Your task to perform on an android device: Show me productivity apps on the Play Store Image 0: 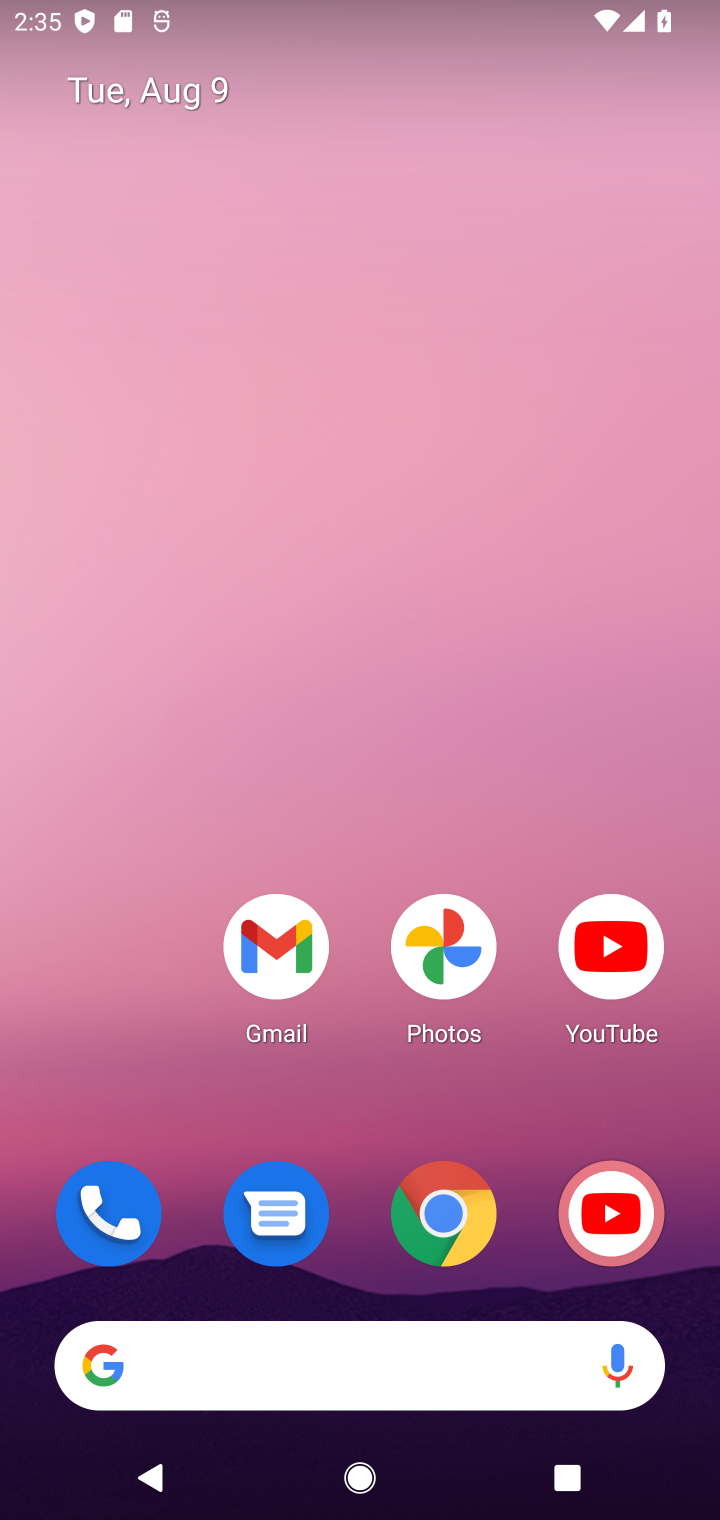
Step 0: drag from (398, 1371) to (651, 599)
Your task to perform on an android device: Show me productivity apps on the Play Store Image 1: 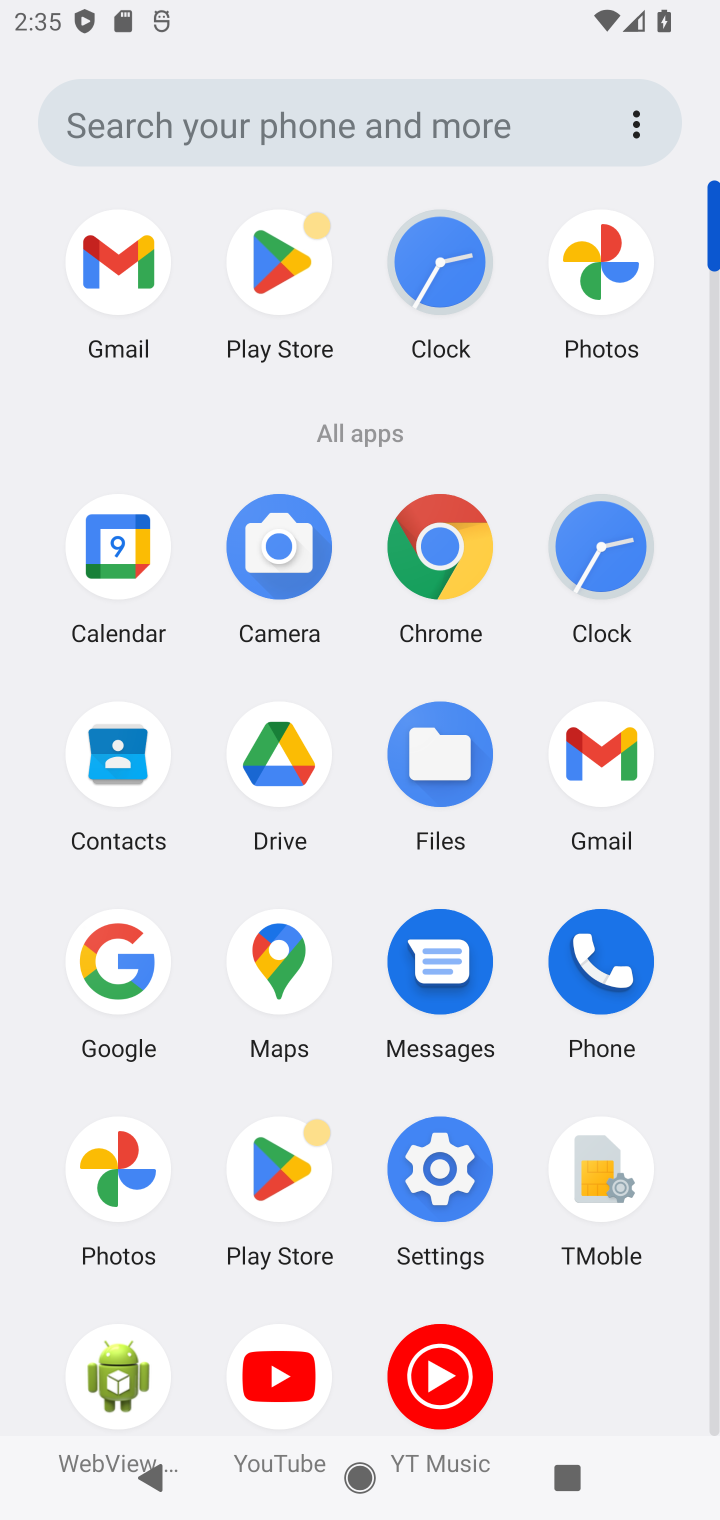
Step 1: click (294, 261)
Your task to perform on an android device: Show me productivity apps on the Play Store Image 2: 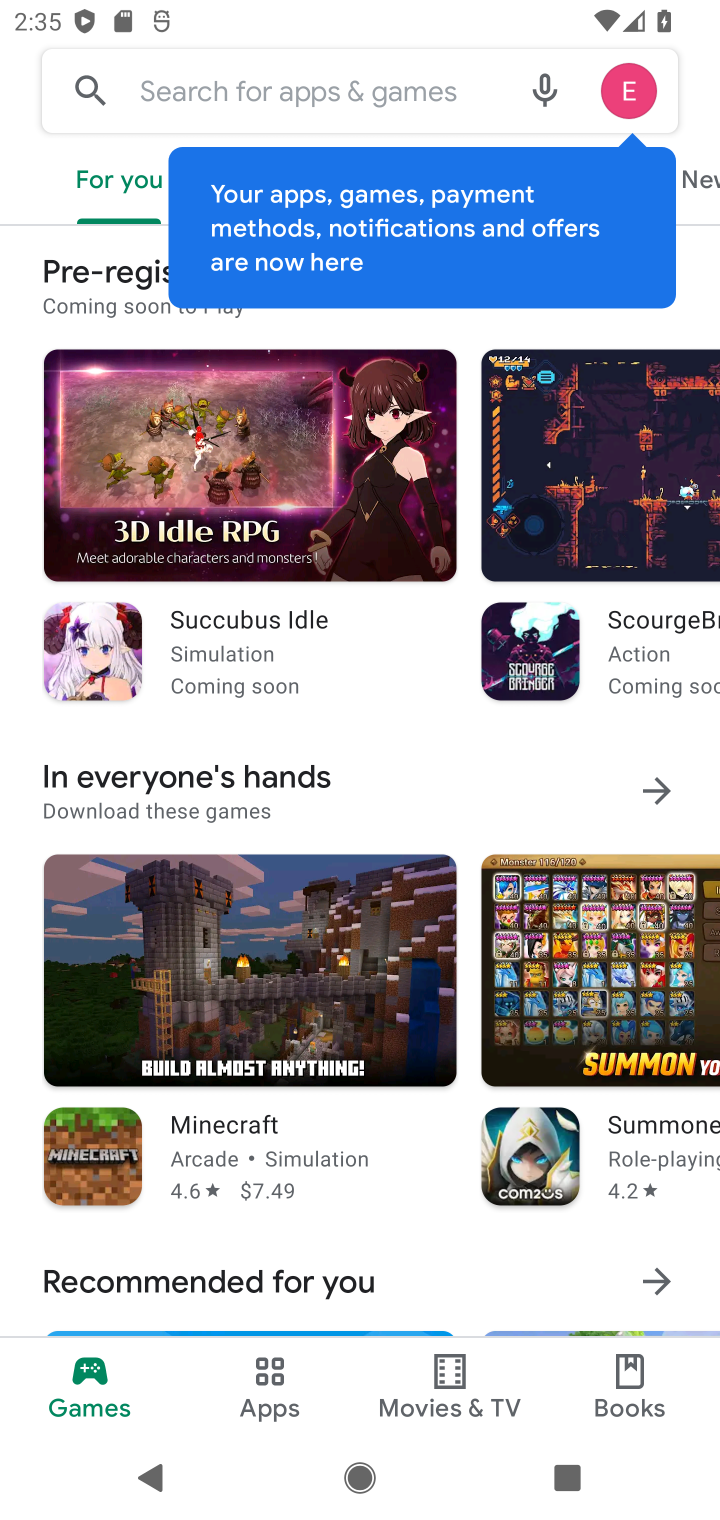
Step 2: click (273, 1370)
Your task to perform on an android device: Show me productivity apps on the Play Store Image 3: 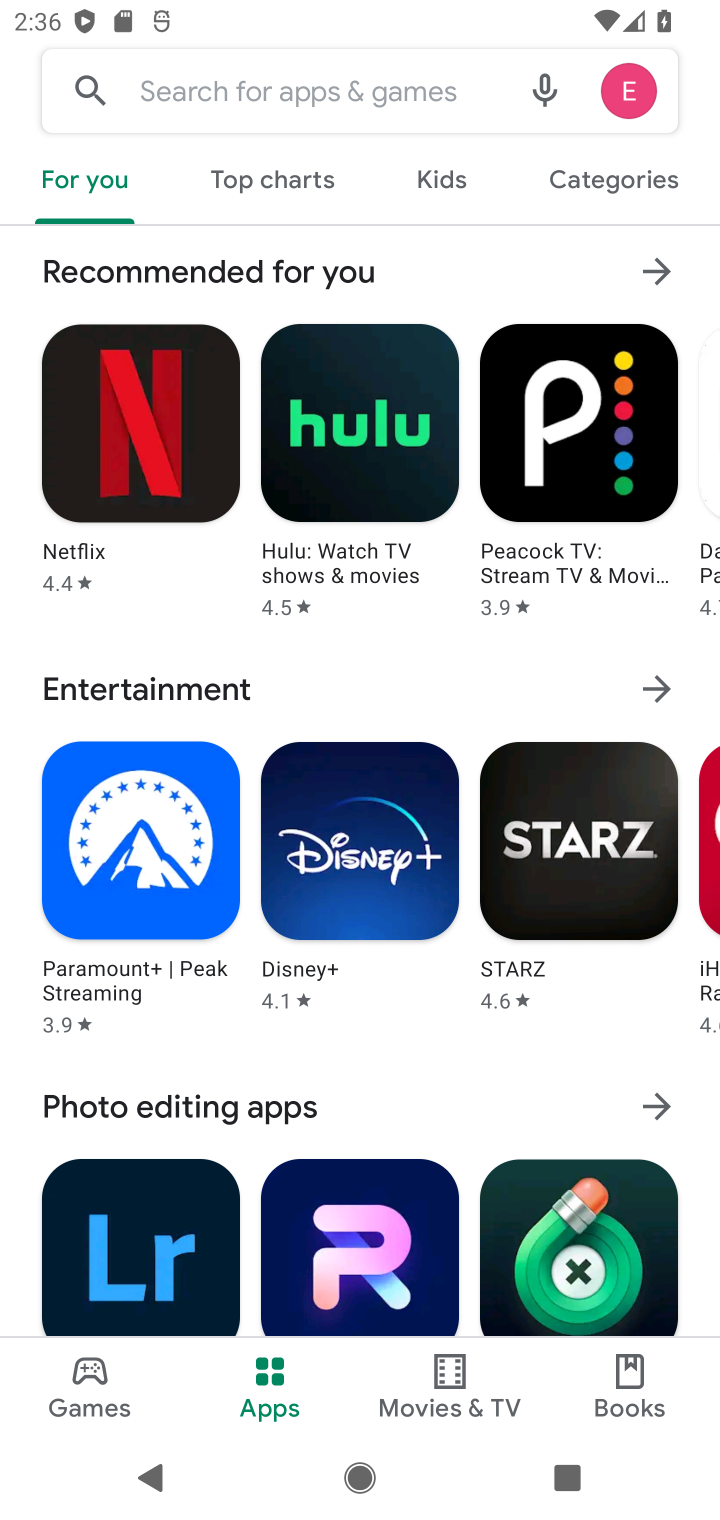
Step 3: click (640, 172)
Your task to perform on an android device: Show me productivity apps on the Play Store Image 4: 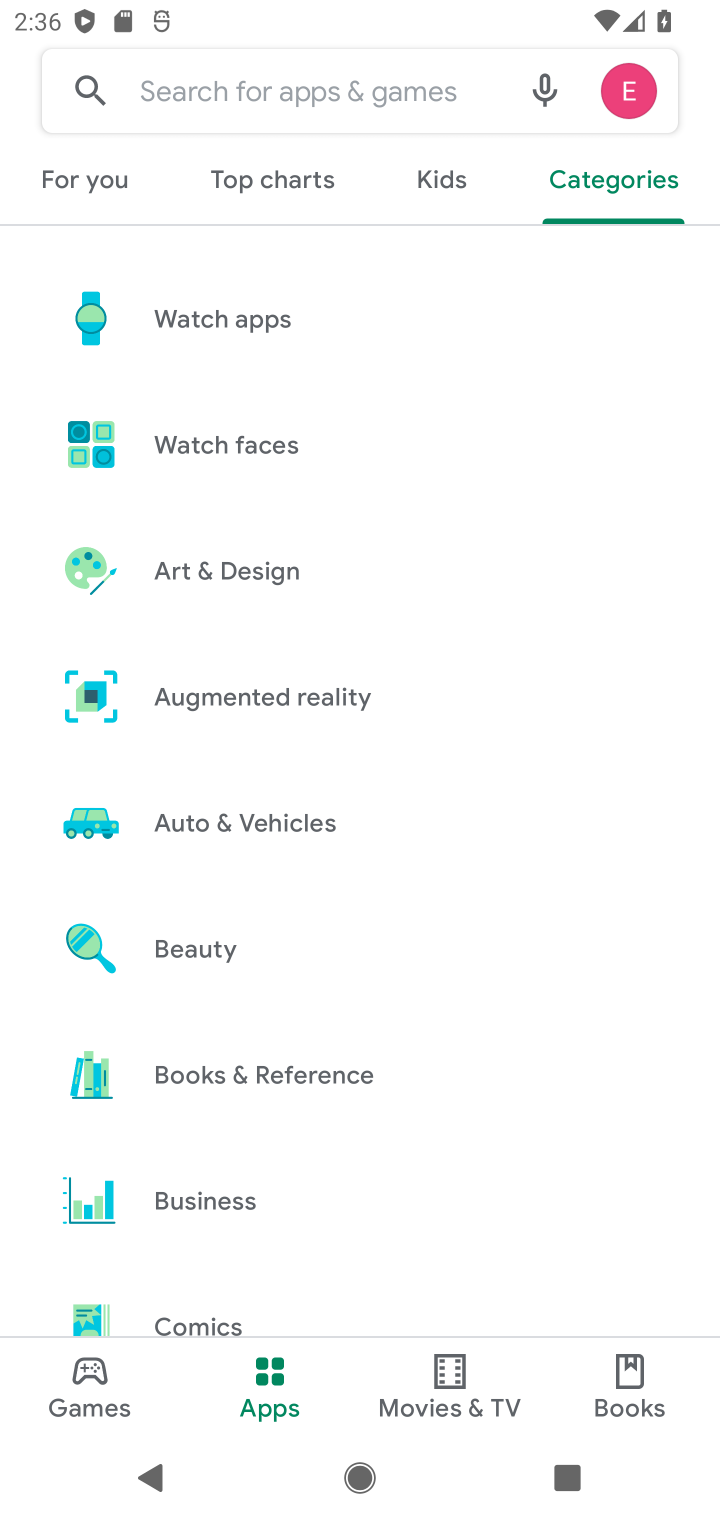
Step 4: drag from (243, 886) to (349, 661)
Your task to perform on an android device: Show me productivity apps on the Play Store Image 5: 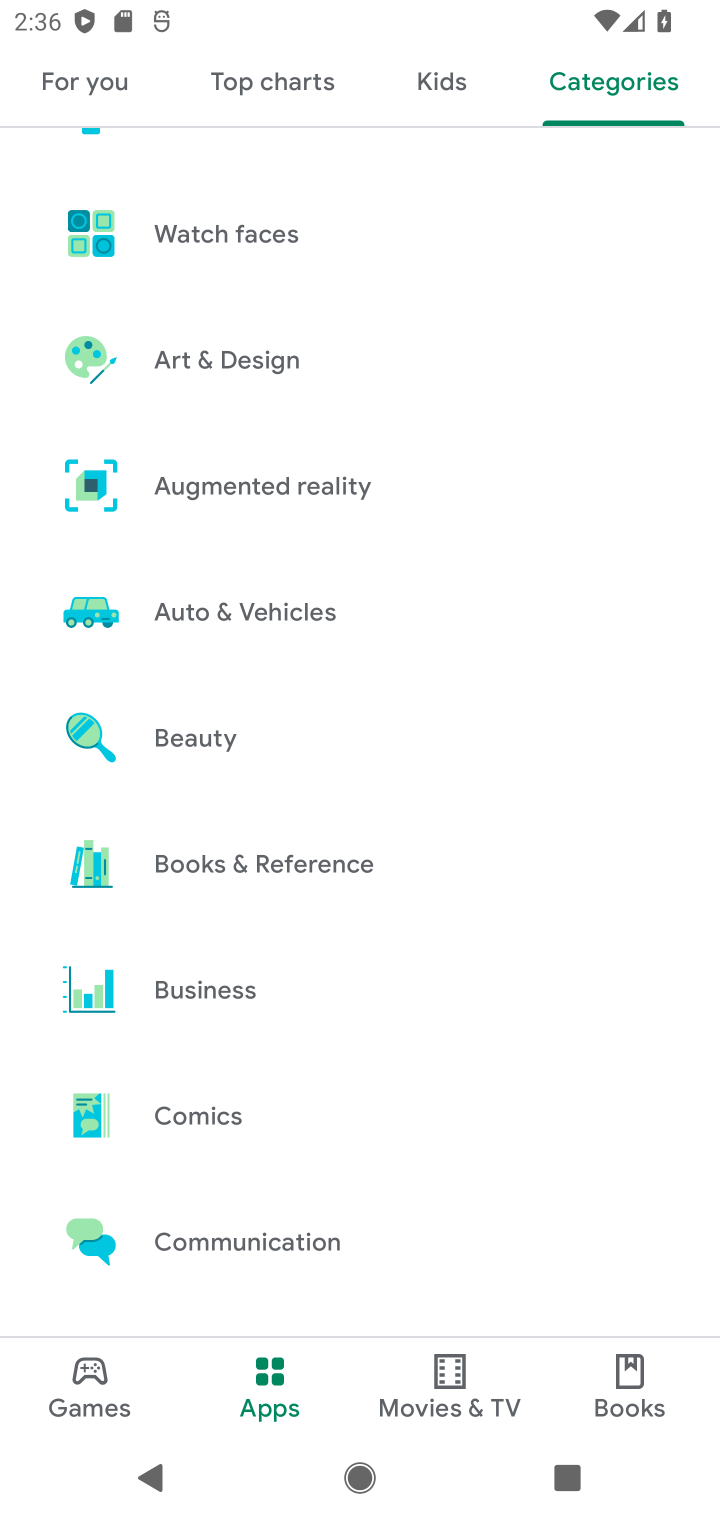
Step 5: drag from (255, 913) to (365, 714)
Your task to perform on an android device: Show me productivity apps on the Play Store Image 6: 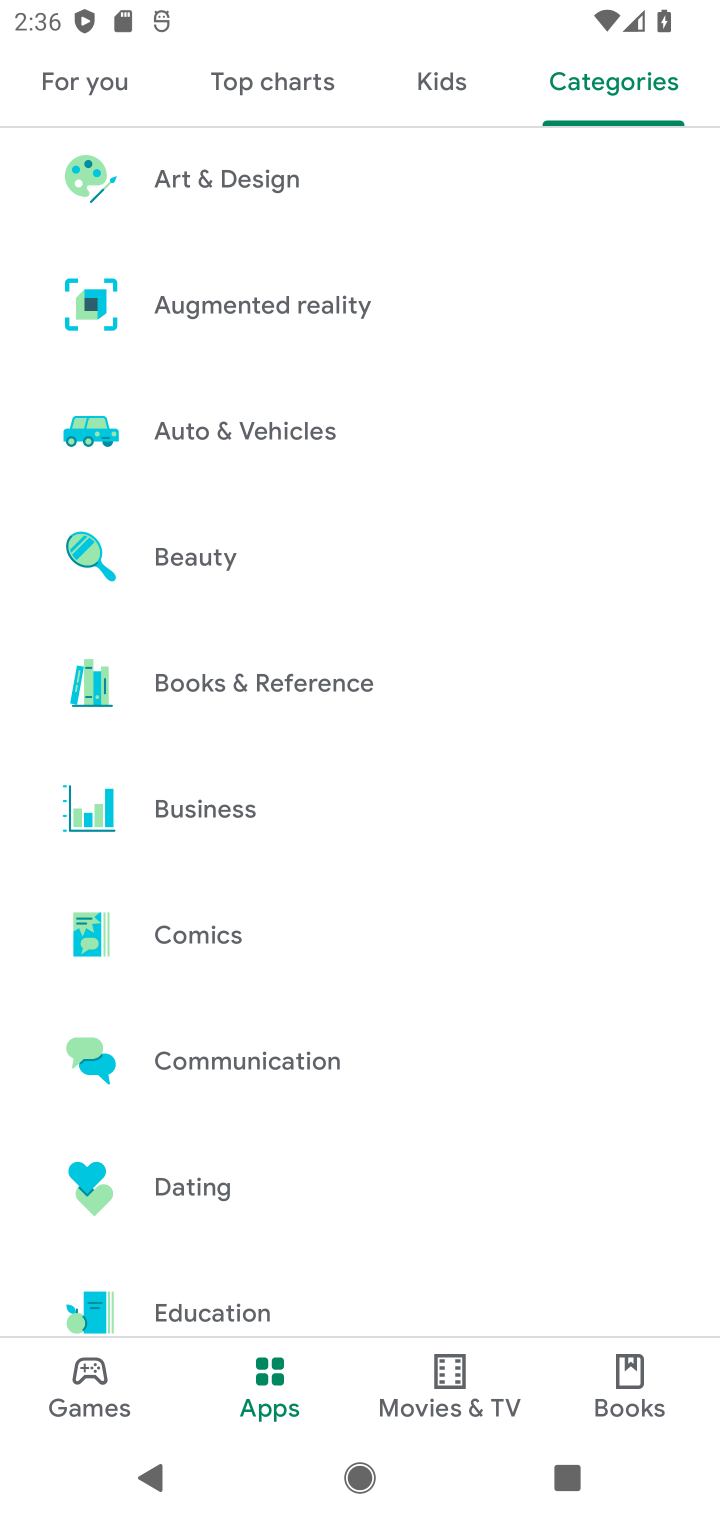
Step 6: drag from (271, 900) to (351, 765)
Your task to perform on an android device: Show me productivity apps on the Play Store Image 7: 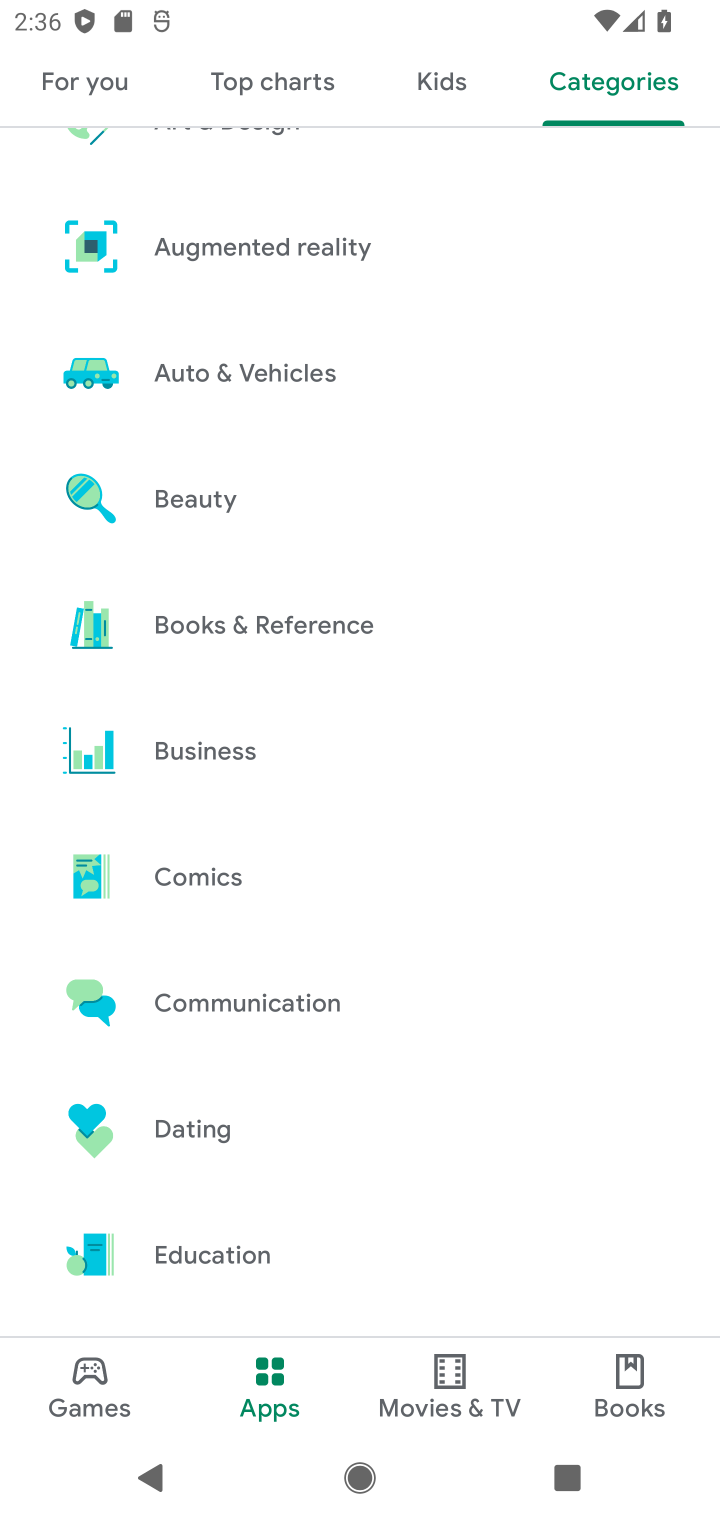
Step 7: drag from (255, 908) to (314, 814)
Your task to perform on an android device: Show me productivity apps on the Play Store Image 8: 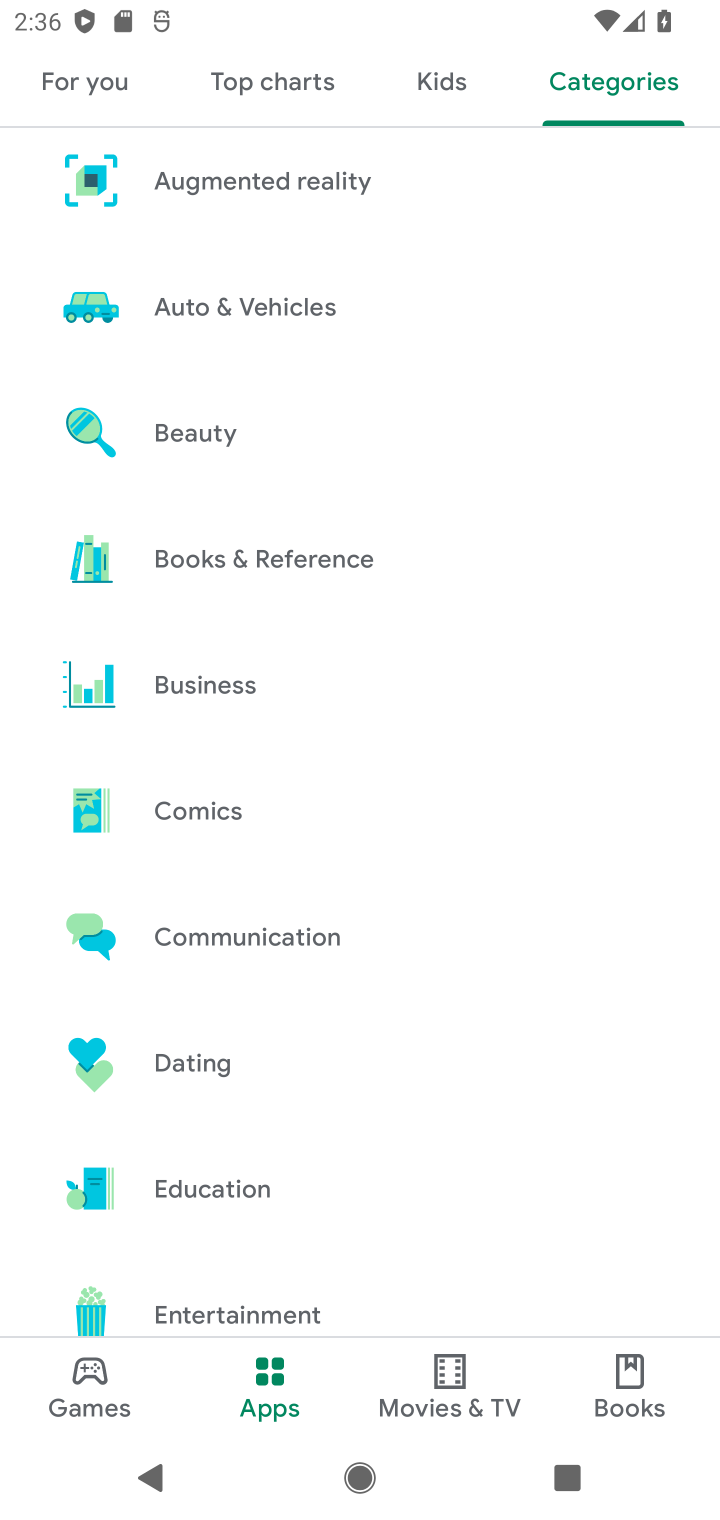
Step 8: drag from (192, 1034) to (297, 872)
Your task to perform on an android device: Show me productivity apps on the Play Store Image 9: 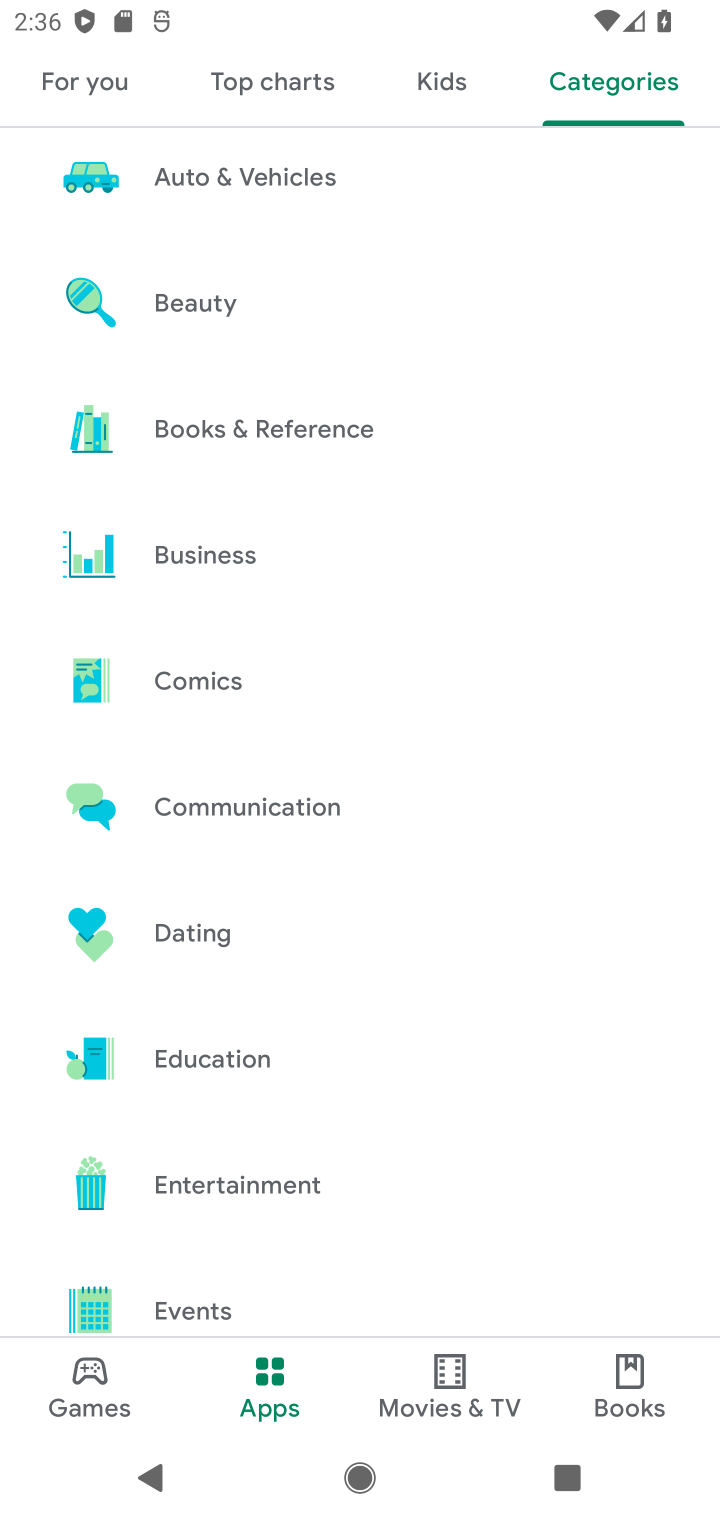
Step 9: drag from (143, 1072) to (266, 899)
Your task to perform on an android device: Show me productivity apps on the Play Store Image 10: 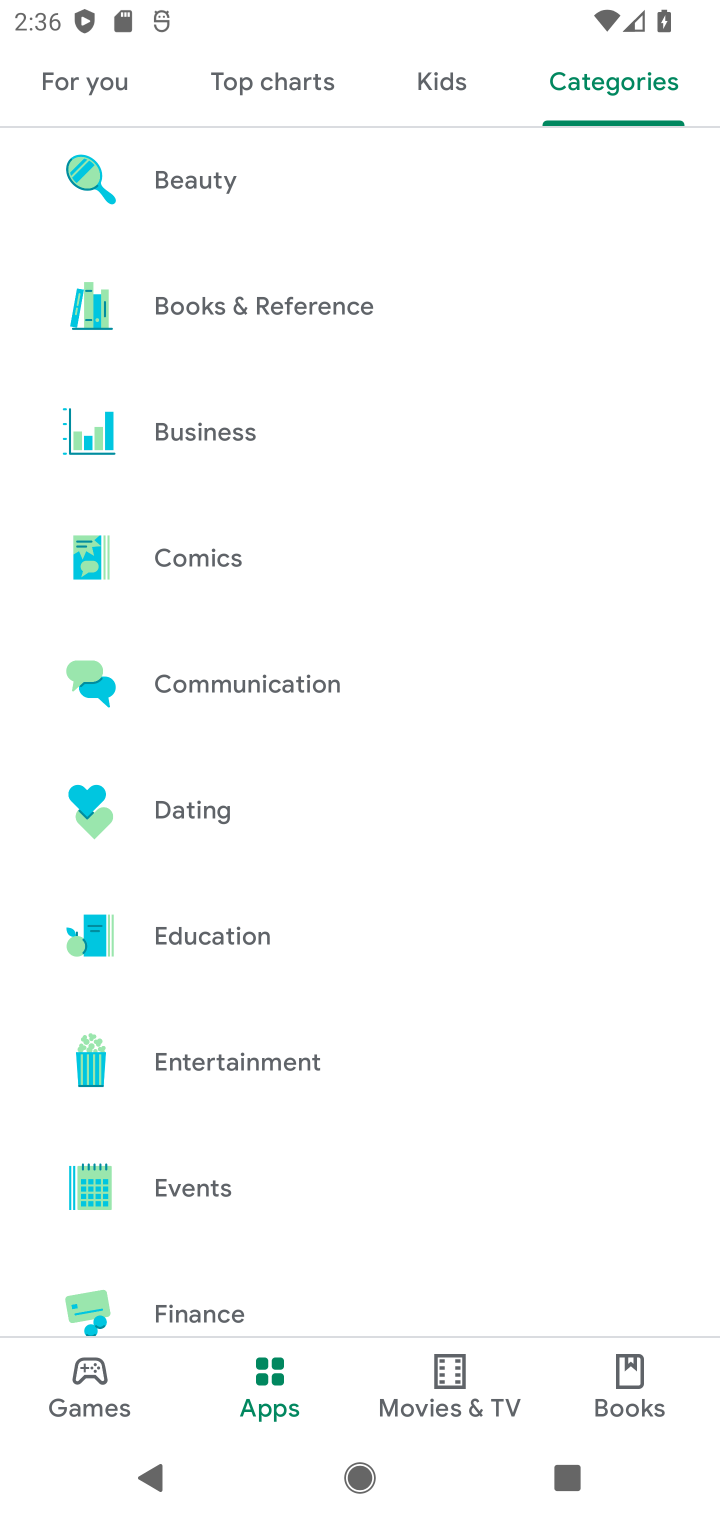
Step 10: drag from (159, 1113) to (287, 914)
Your task to perform on an android device: Show me productivity apps on the Play Store Image 11: 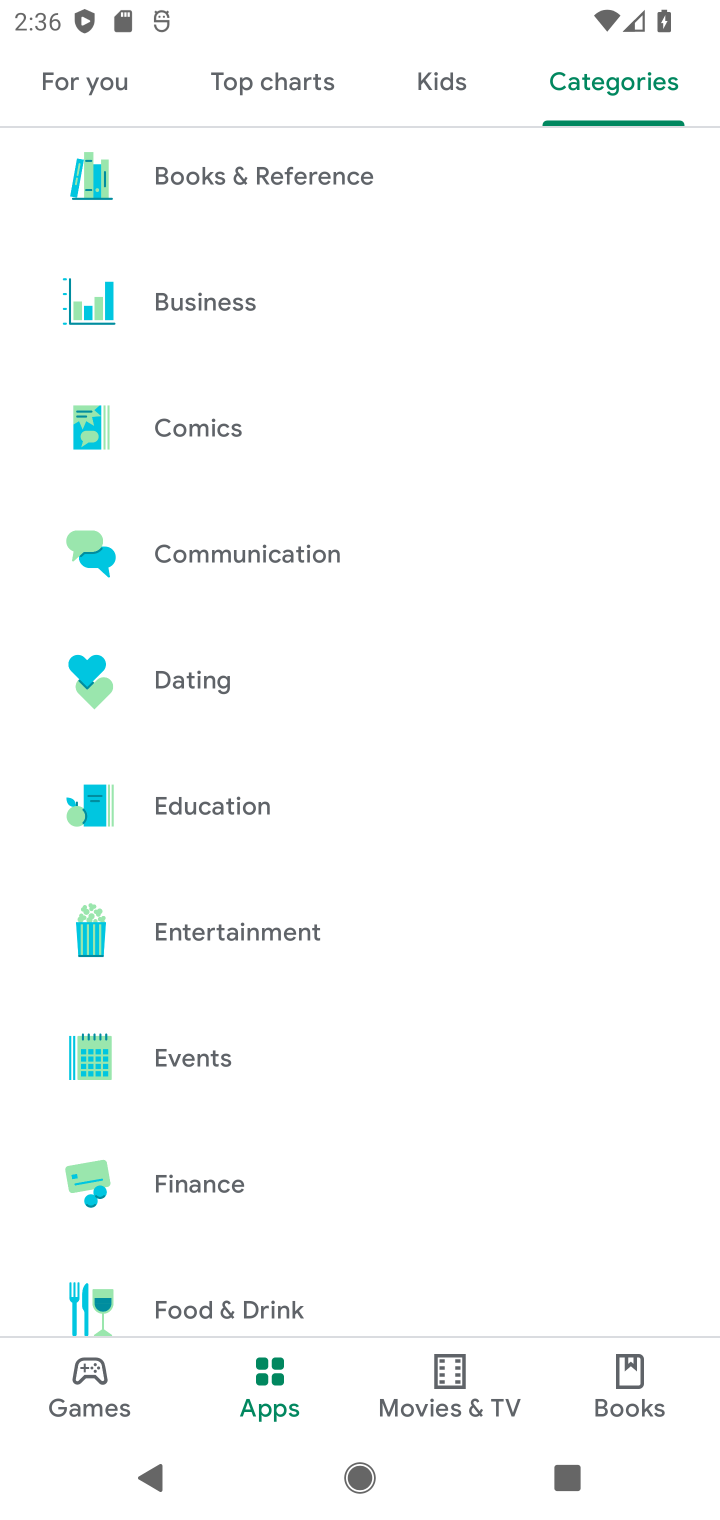
Step 11: drag from (179, 1141) to (320, 930)
Your task to perform on an android device: Show me productivity apps on the Play Store Image 12: 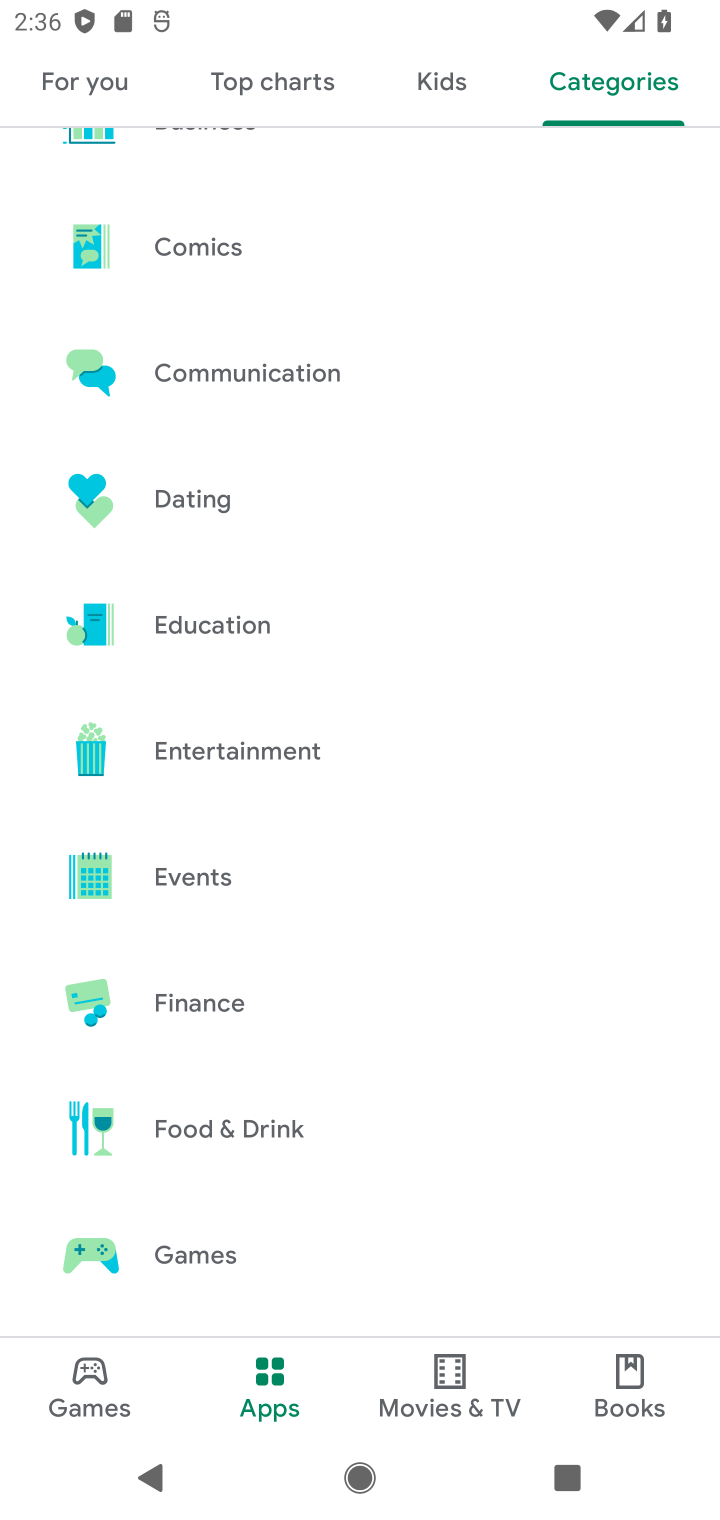
Step 12: drag from (243, 1105) to (333, 923)
Your task to perform on an android device: Show me productivity apps on the Play Store Image 13: 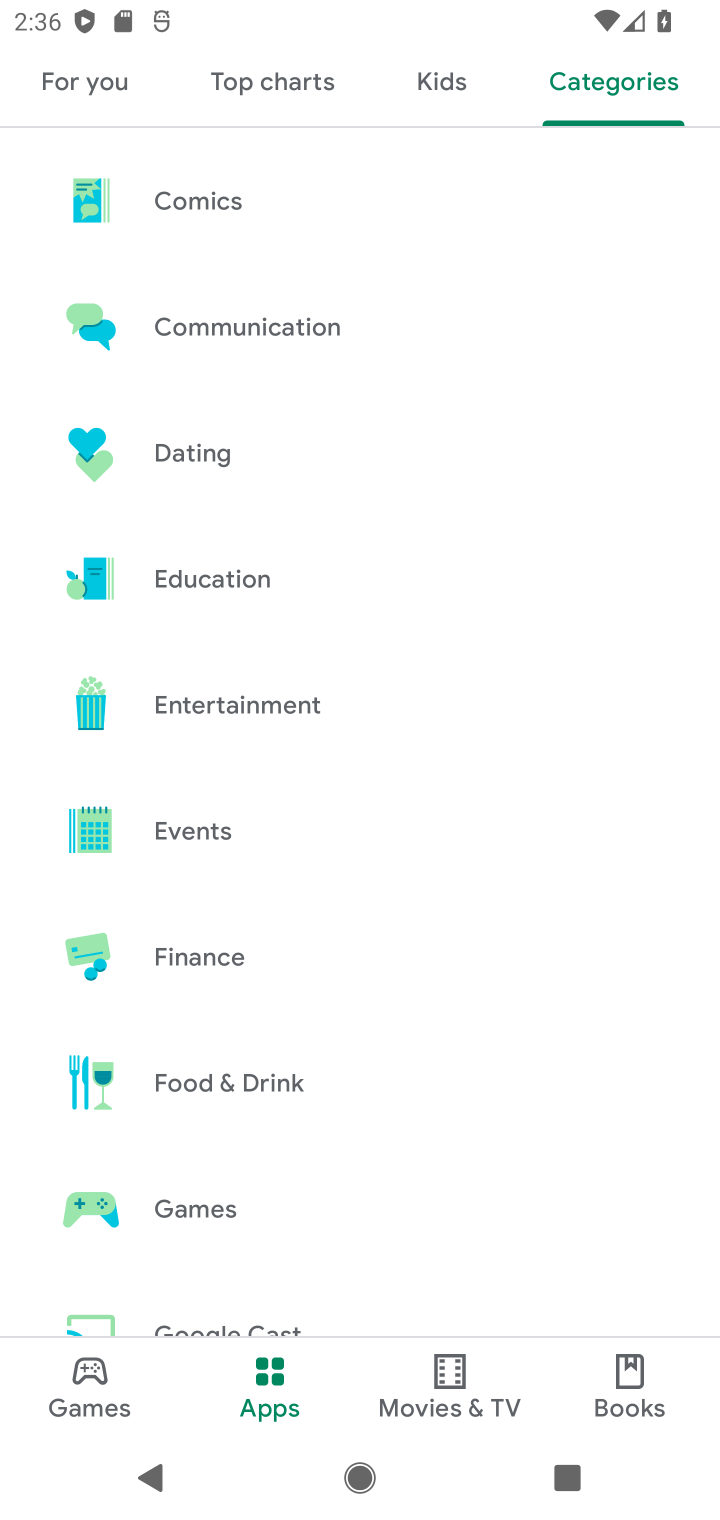
Step 13: drag from (213, 1163) to (334, 944)
Your task to perform on an android device: Show me productivity apps on the Play Store Image 14: 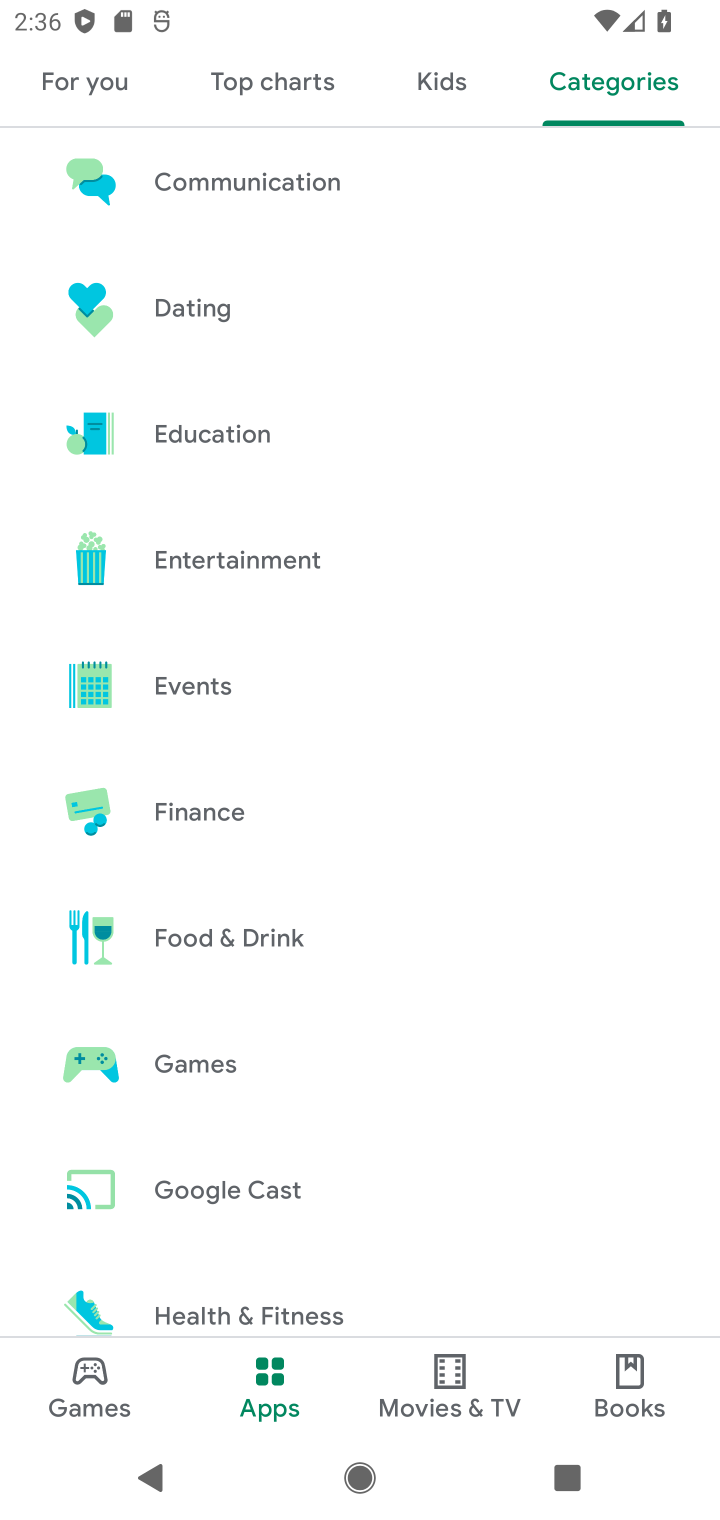
Step 14: drag from (172, 1202) to (301, 920)
Your task to perform on an android device: Show me productivity apps on the Play Store Image 15: 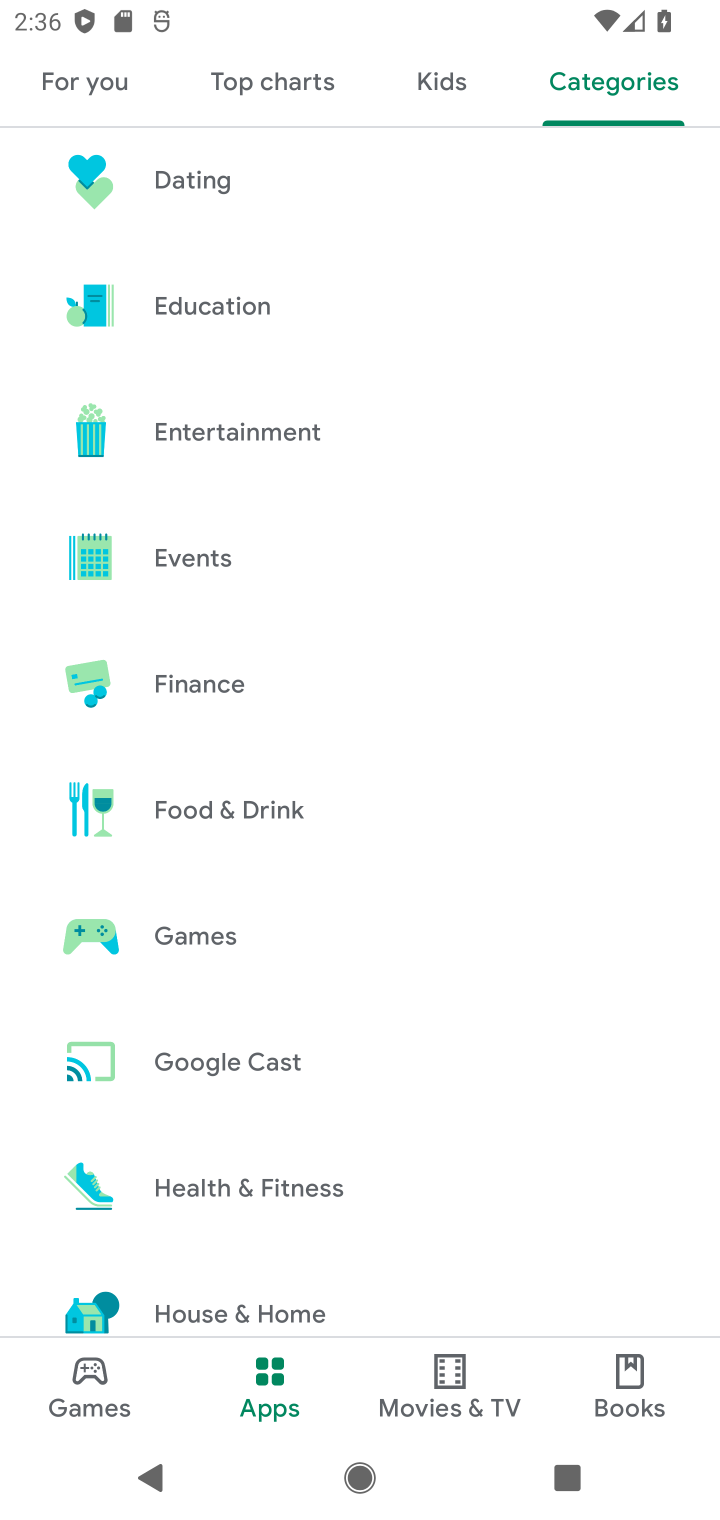
Step 15: drag from (183, 1183) to (315, 953)
Your task to perform on an android device: Show me productivity apps on the Play Store Image 16: 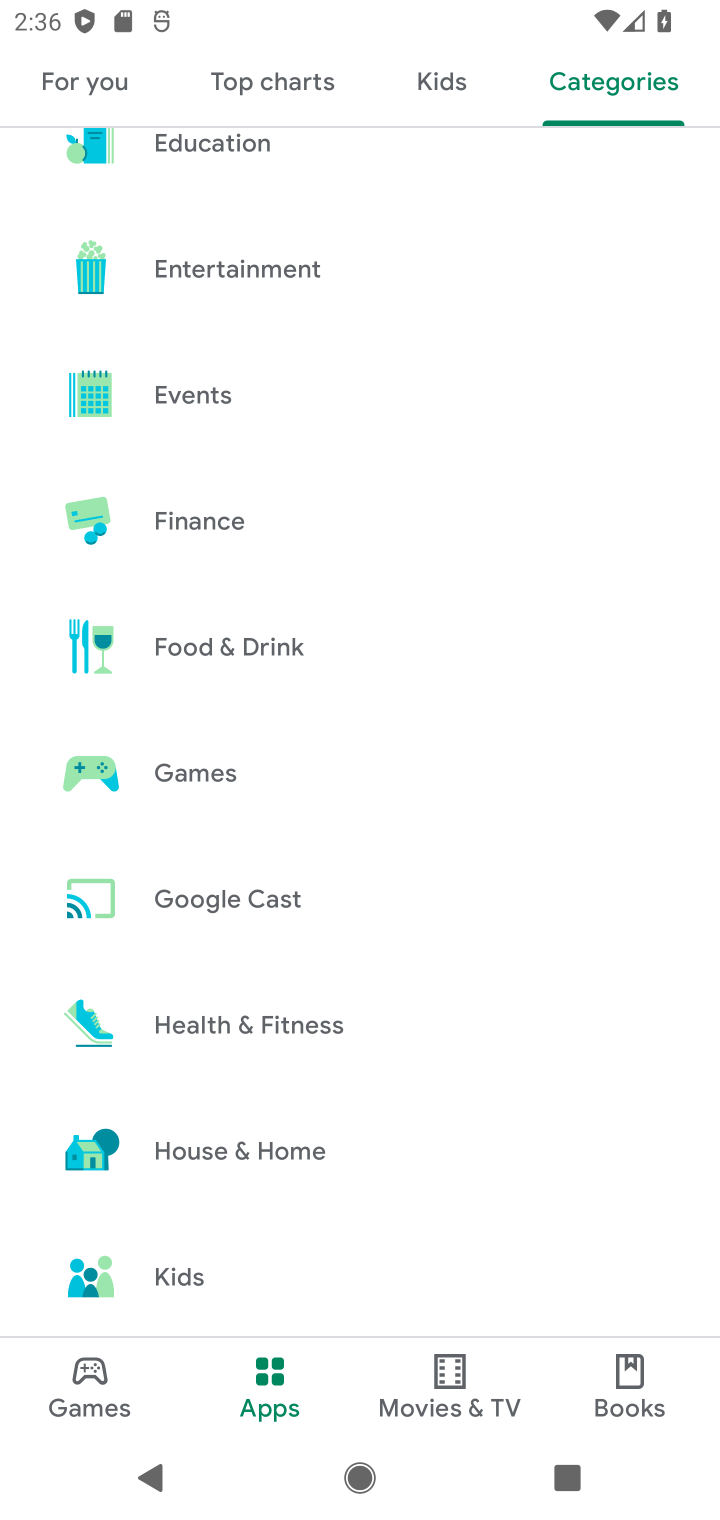
Step 16: drag from (190, 1218) to (288, 998)
Your task to perform on an android device: Show me productivity apps on the Play Store Image 17: 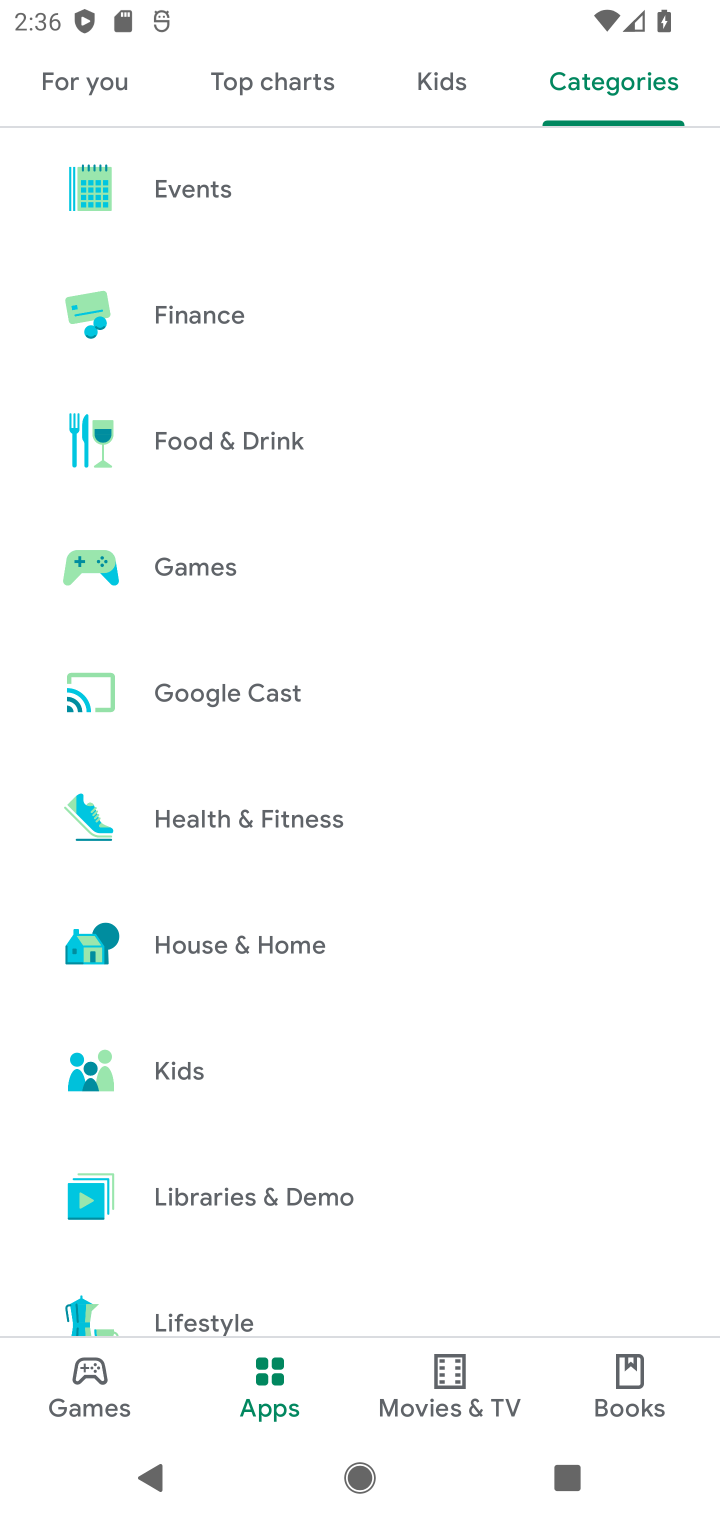
Step 17: drag from (207, 1167) to (328, 935)
Your task to perform on an android device: Show me productivity apps on the Play Store Image 18: 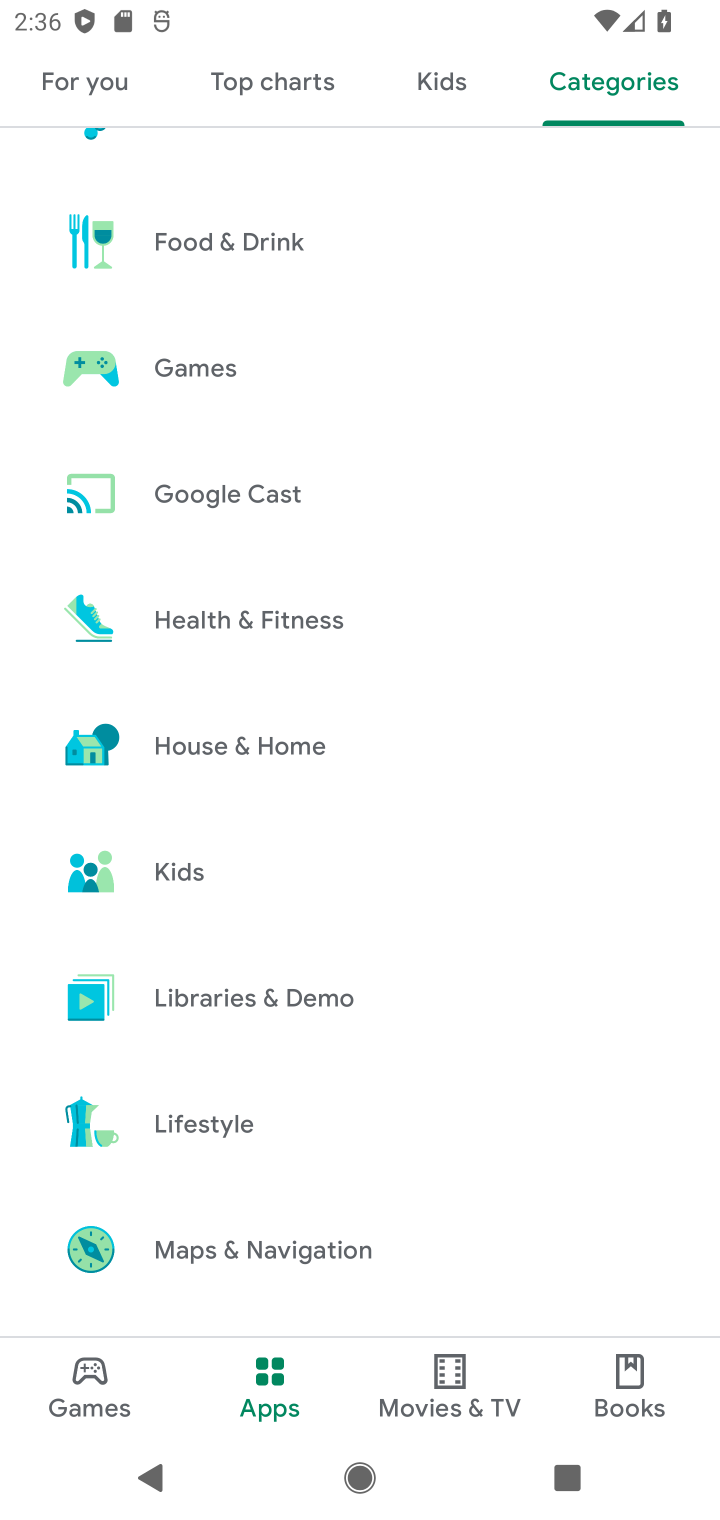
Step 18: drag from (202, 1165) to (322, 939)
Your task to perform on an android device: Show me productivity apps on the Play Store Image 19: 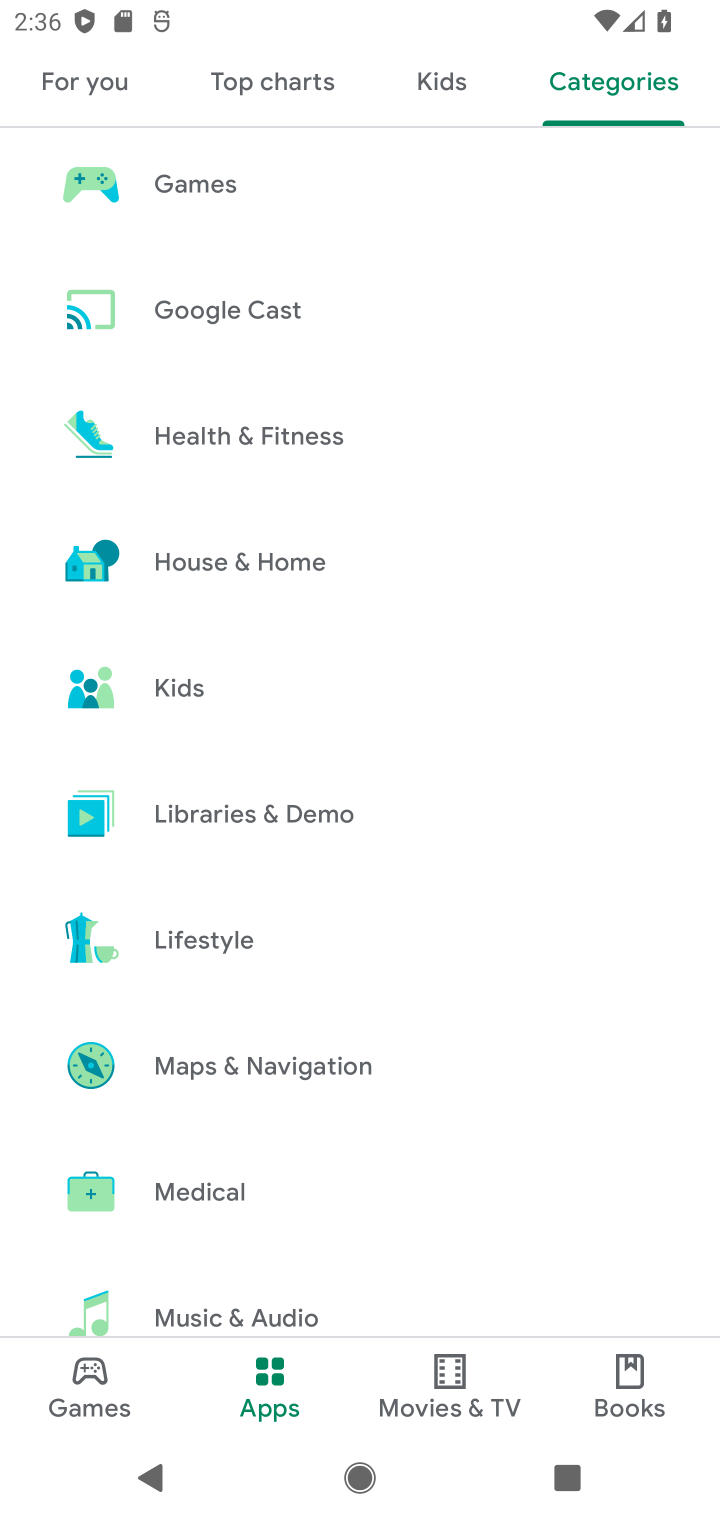
Step 19: drag from (256, 1141) to (339, 903)
Your task to perform on an android device: Show me productivity apps on the Play Store Image 20: 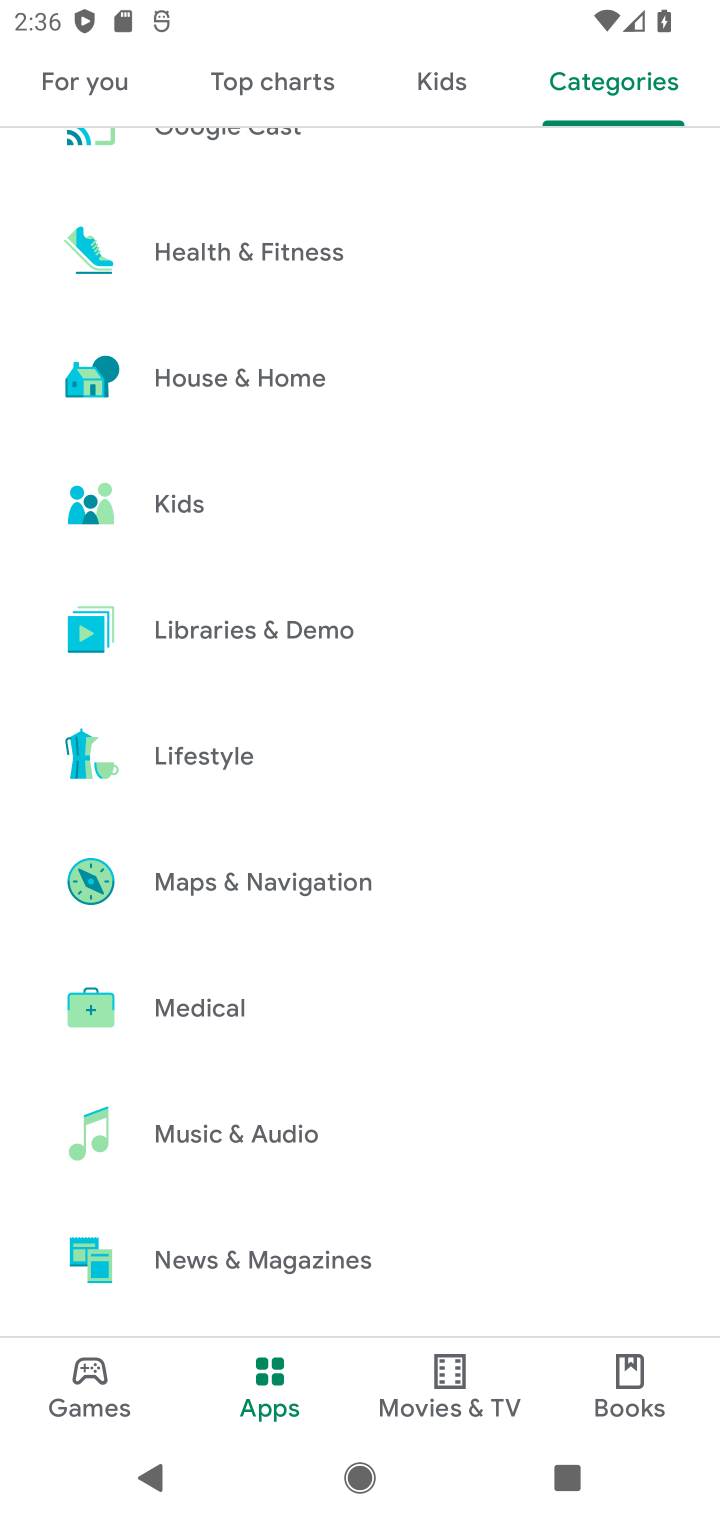
Step 20: drag from (287, 1109) to (370, 956)
Your task to perform on an android device: Show me productivity apps on the Play Store Image 21: 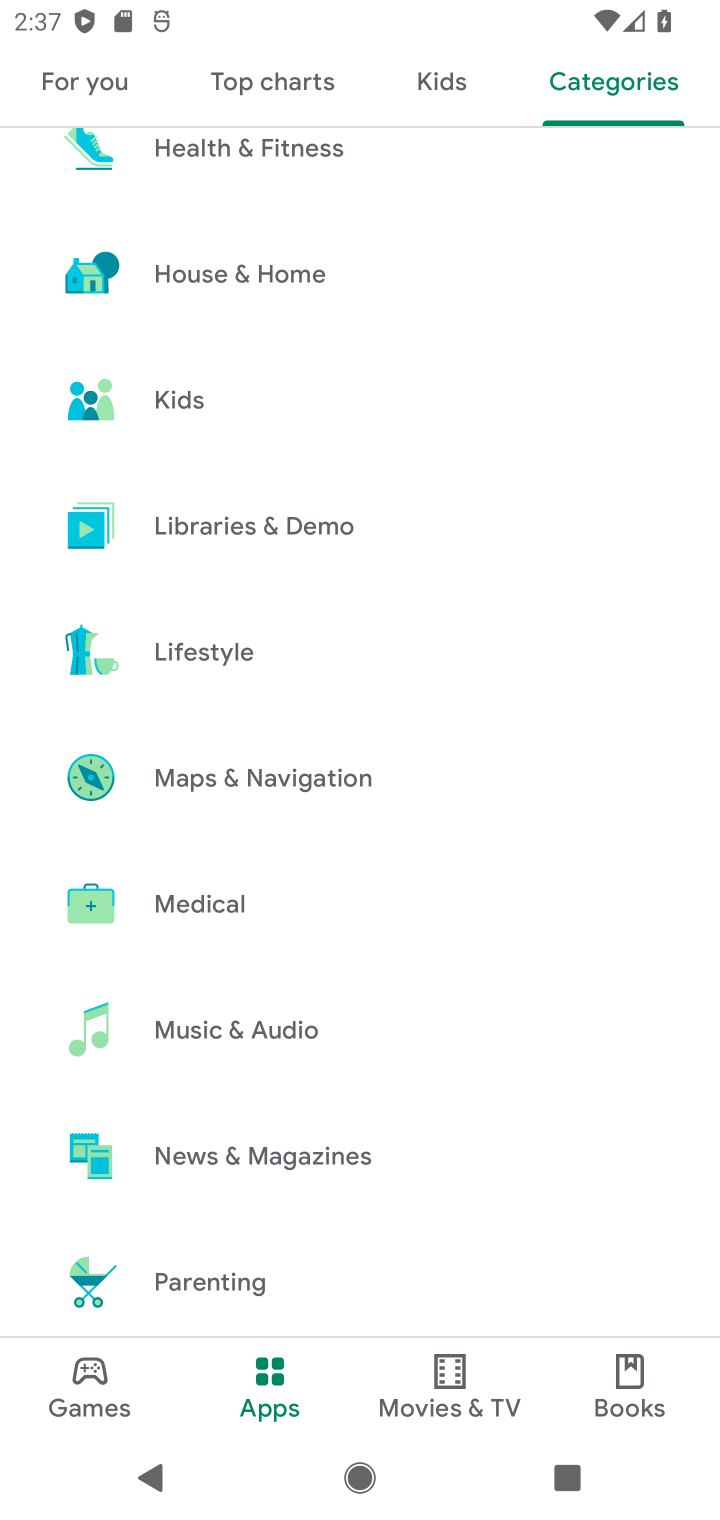
Step 21: drag from (224, 1252) to (339, 1025)
Your task to perform on an android device: Show me productivity apps on the Play Store Image 22: 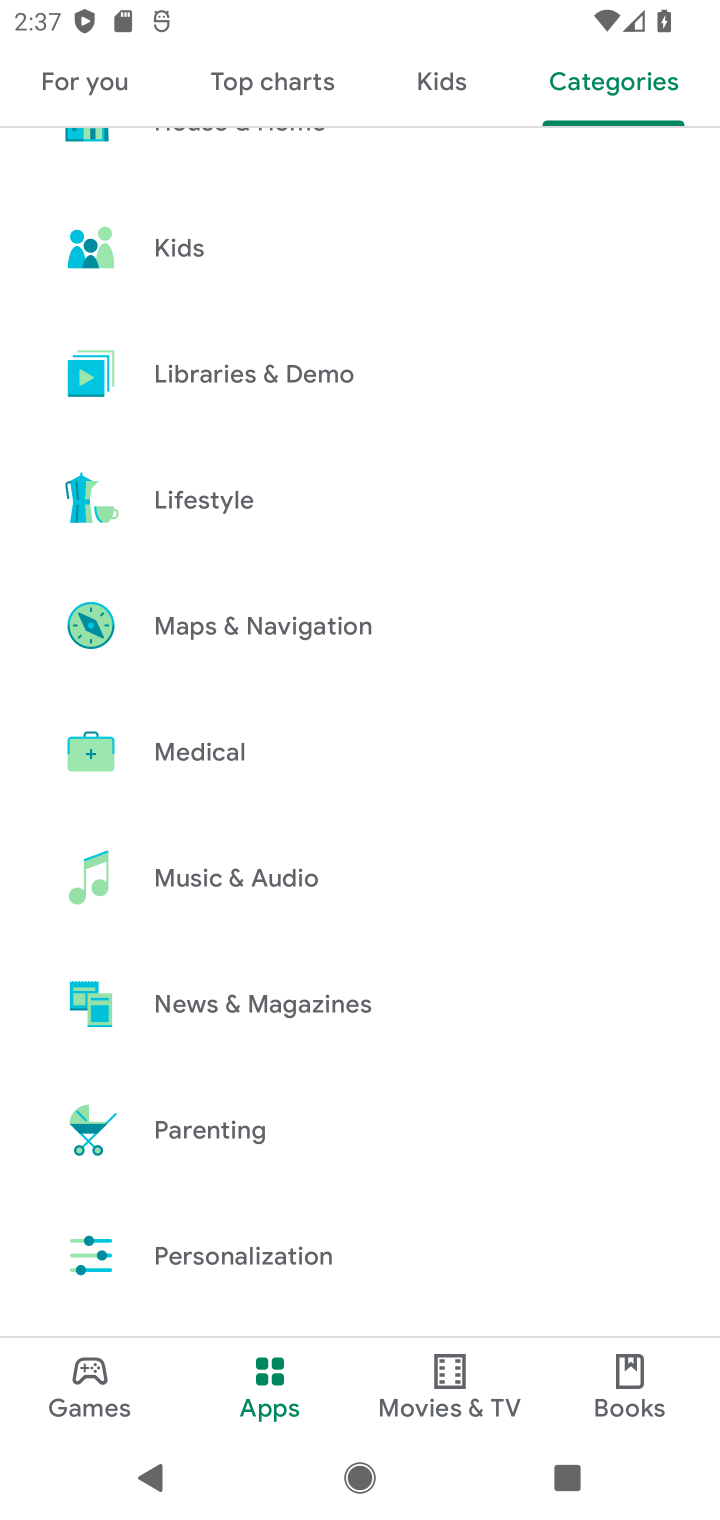
Step 22: drag from (248, 1280) to (352, 1085)
Your task to perform on an android device: Show me productivity apps on the Play Store Image 23: 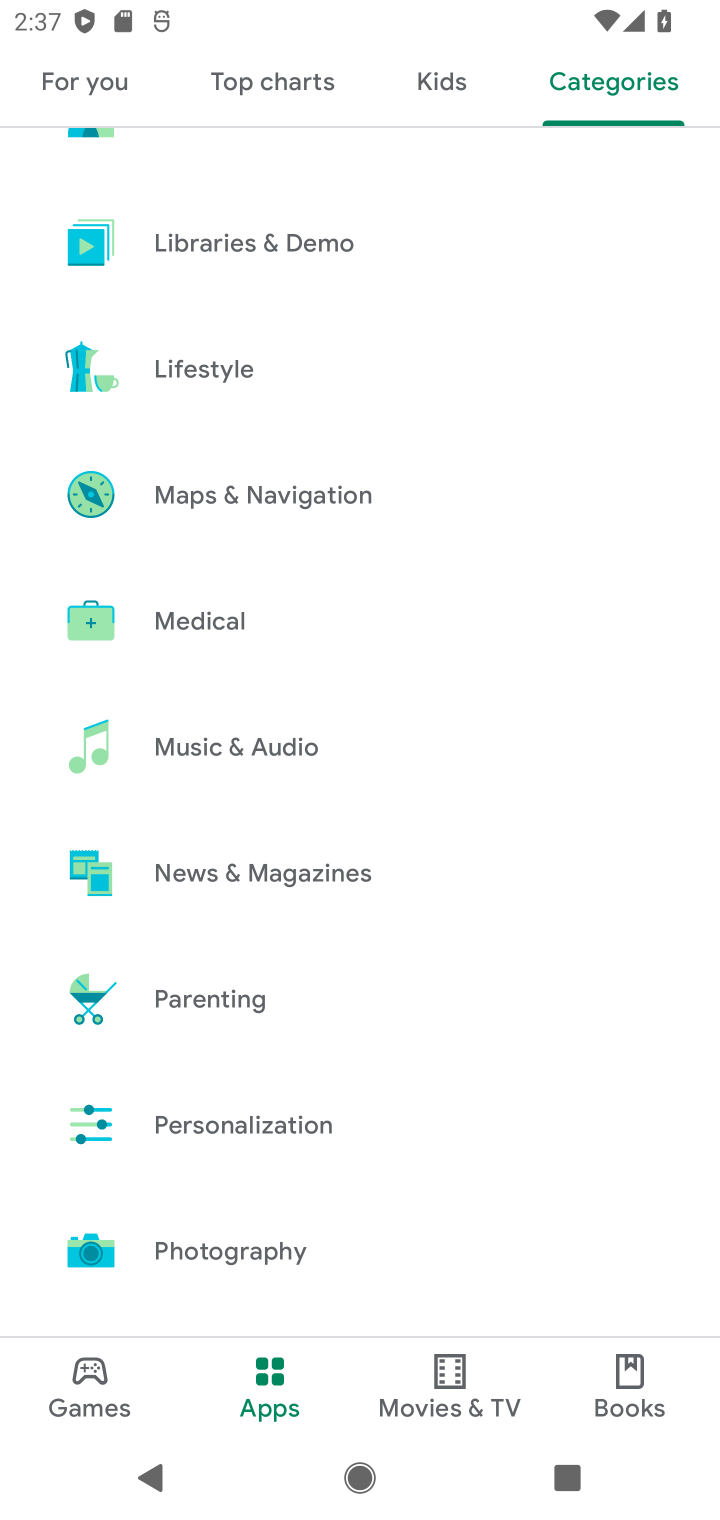
Step 23: drag from (218, 1244) to (376, 1038)
Your task to perform on an android device: Show me productivity apps on the Play Store Image 24: 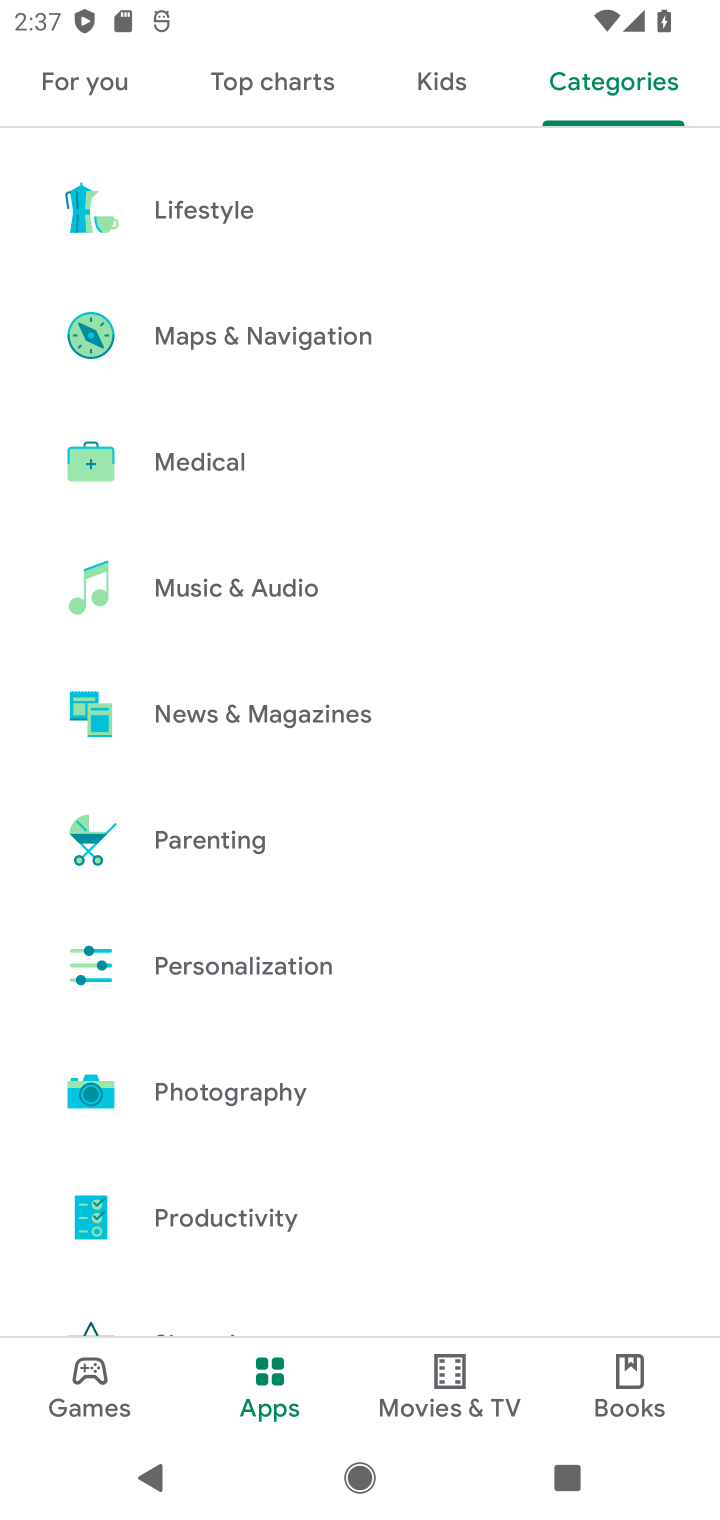
Step 24: click (223, 1220)
Your task to perform on an android device: Show me productivity apps on the Play Store Image 25: 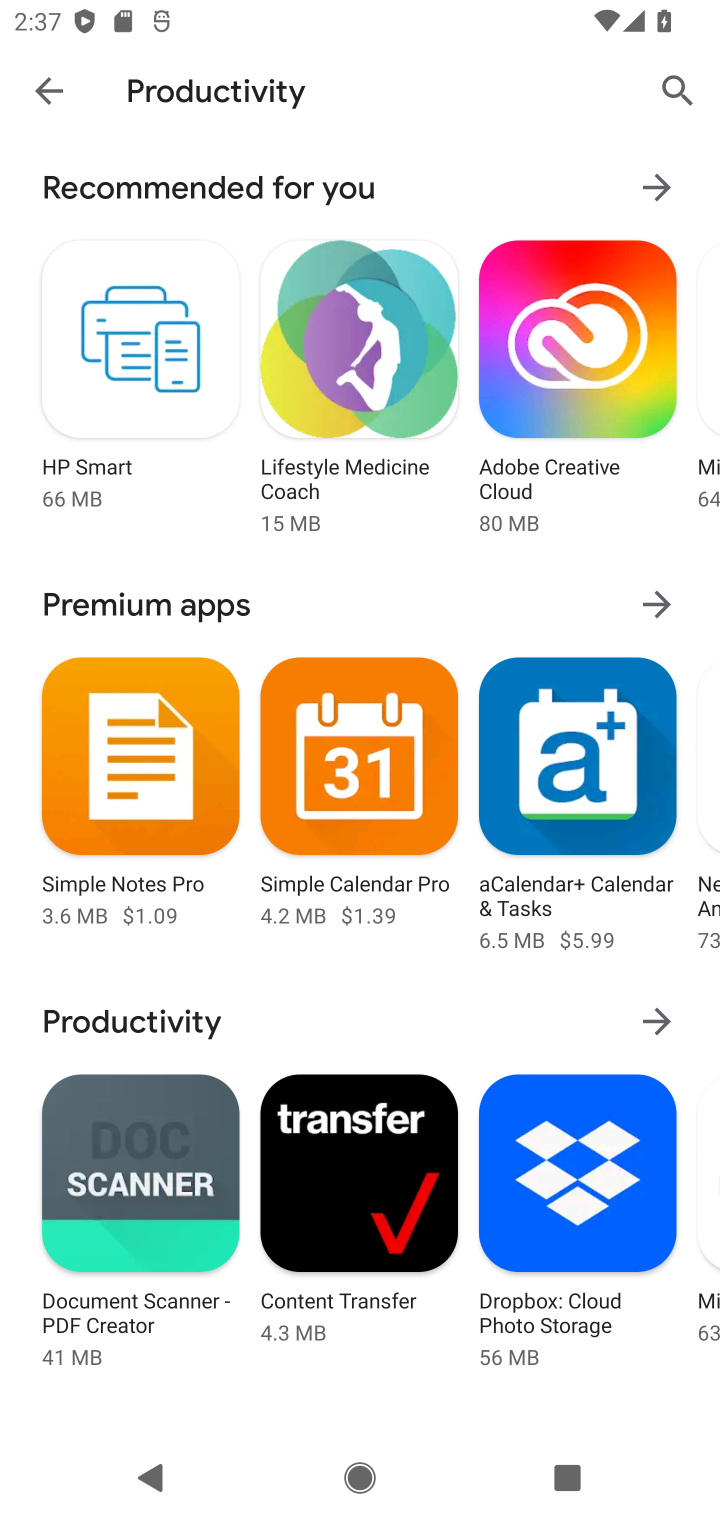
Step 25: task complete